Your task to perform on an android device: Go to location settings Image 0: 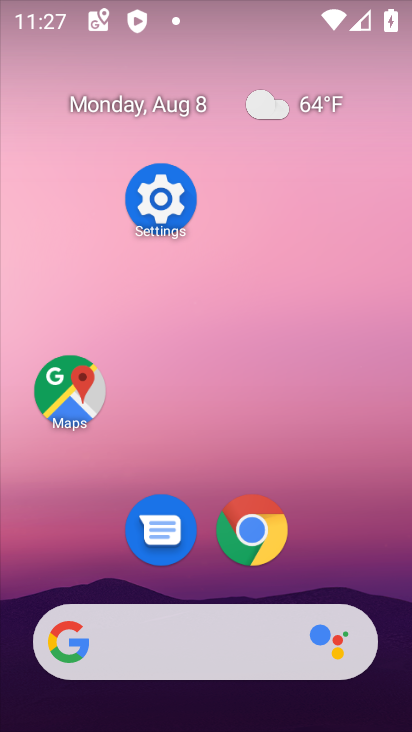
Step 0: drag from (233, 280) to (228, 221)
Your task to perform on an android device: Go to location settings Image 1: 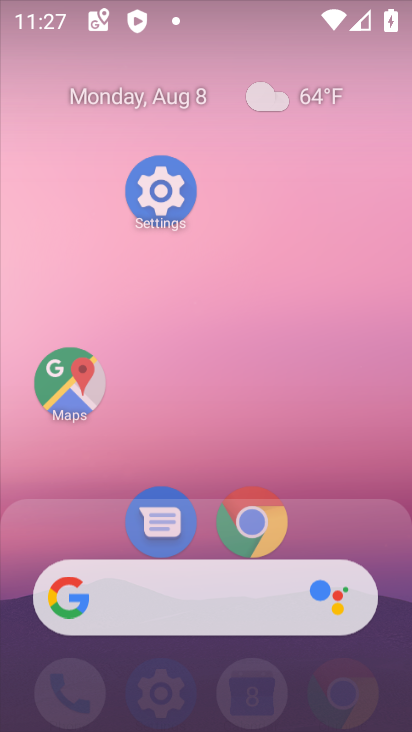
Step 1: drag from (267, 639) to (213, 236)
Your task to perform on an android device: Go to location settings Image 2: 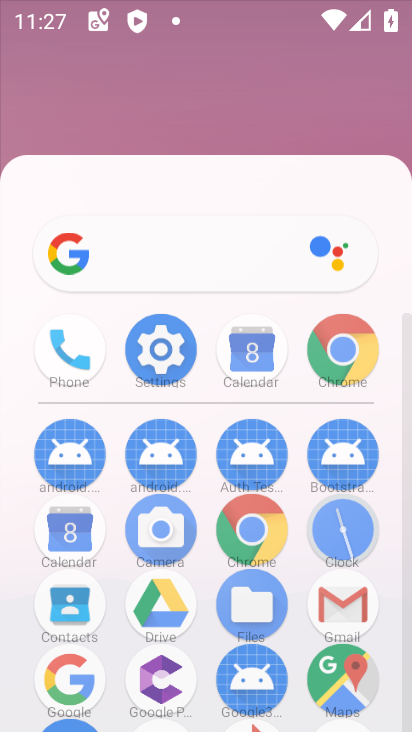
Step 2: drag from (261, 503) to (283, 199)
Your task to perform on an android device: Go to location settings Image 3: 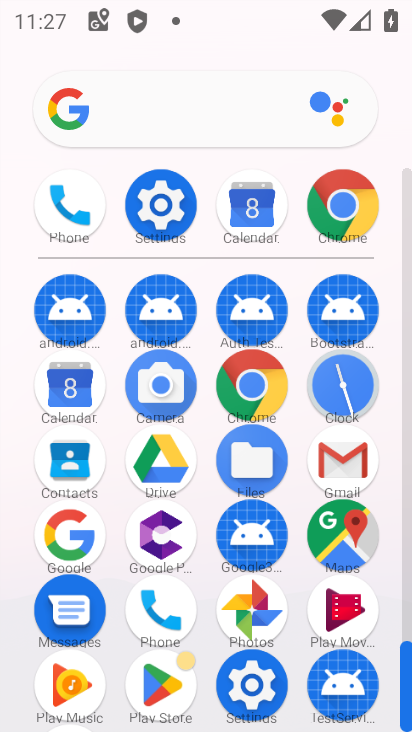
Step 3: click (165, 202)
Your task to perform on an android device: Go to location settings Image 4: 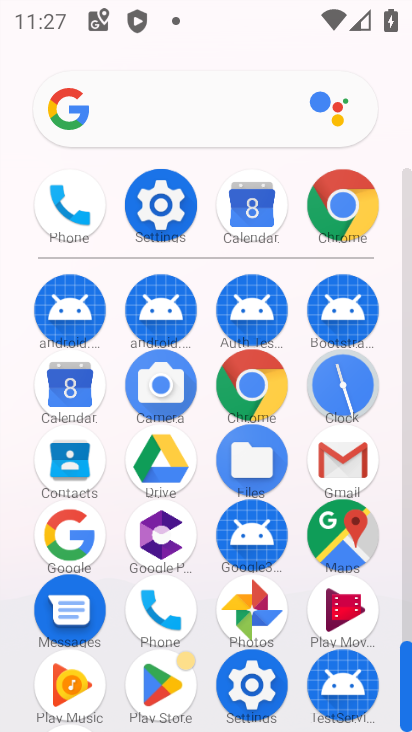
Step 4: click (165, 202)
Your task to perform on an android device: Go to location settings Image 5: 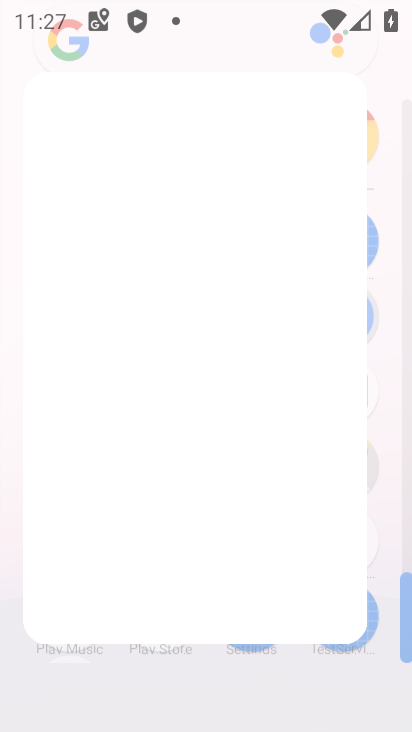
Step 5: click (166, 201)
Your task to perform on an android device: Go to location settings Image 6: 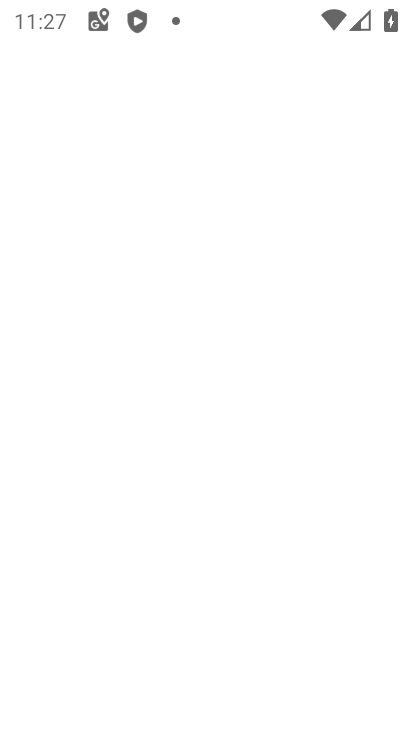
Step 6: click (166, 200)
Your task to perform on an android device: Go to location settings Image 7: 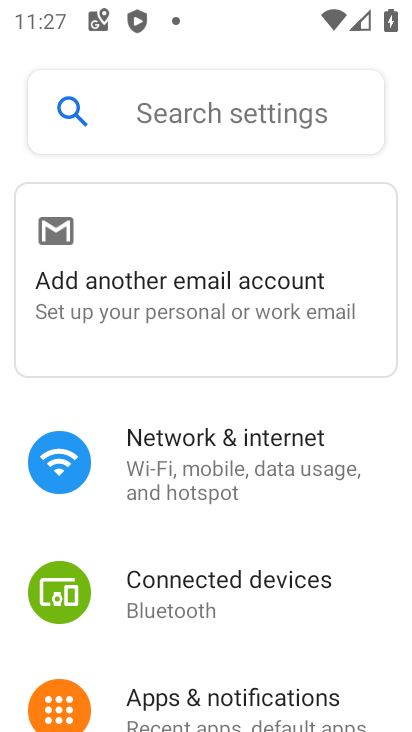
Step 7: drag from (272, 640) to (258, 299)
Your task to perform on an android device: Go to location settings Image 8: 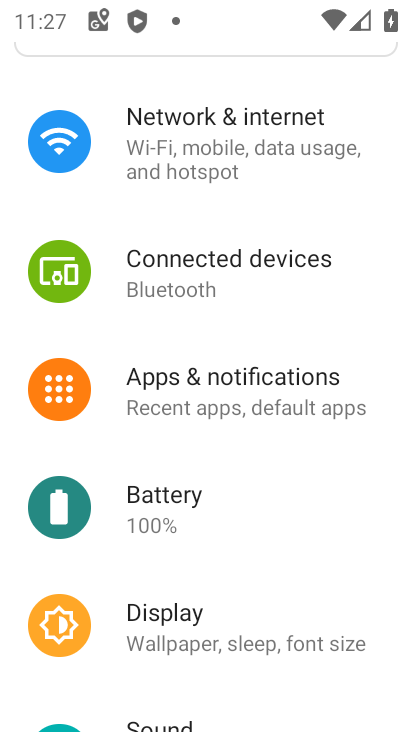
Step 8: drag from (261, 502) to (241, 279)
Your task to perform on an android device: Go to location settings Image 9: 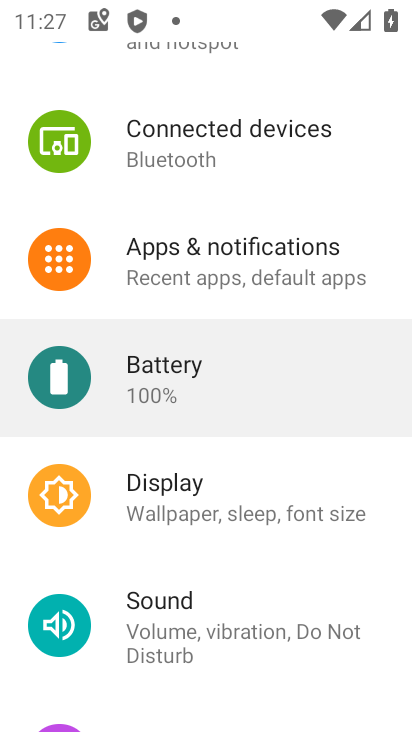
Step 9: drag from (265, 447) to (215, 171)
Your task to perform on an android device: Go to location settings Image 10: 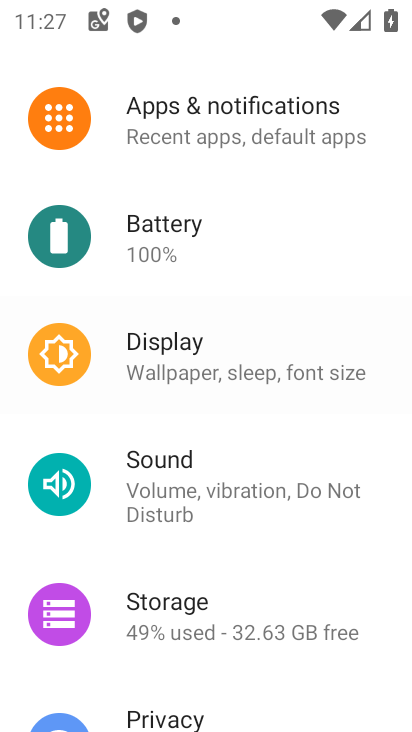
Step 10: drag from (236, 461) to (218, 218)
Your task to perform on an android device: Go to location settings Image 11: 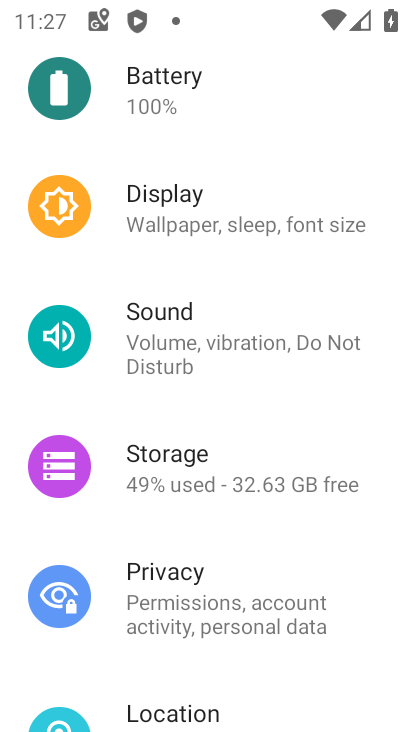
Step 11: drag from (167, 658) to (173, 241)
Your task to perform on an android device: Go to location settings Image 12: 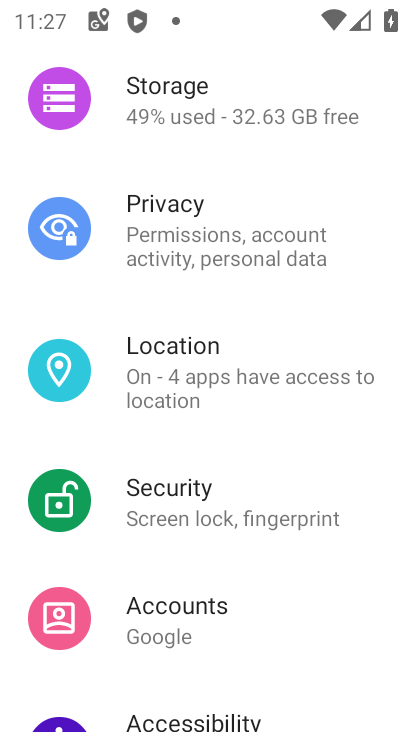
Step 12: drag from (232, 686) to (211, 318)
Your task to perform on an android device: Go to location settings Image 13: 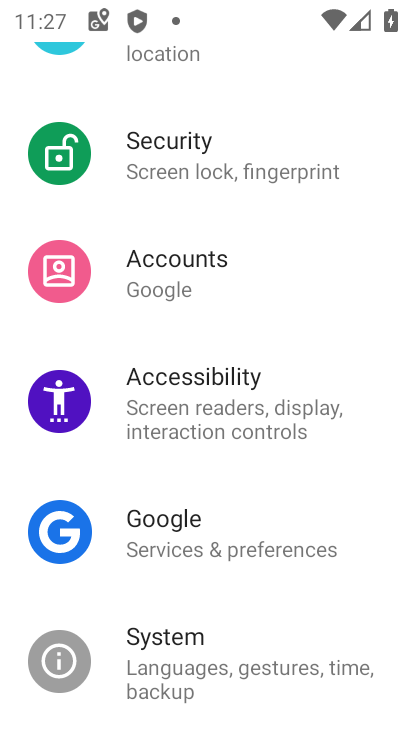
Step 13: click (172, 175)
Your task to perform on an android device: Go to location settings Image 14: 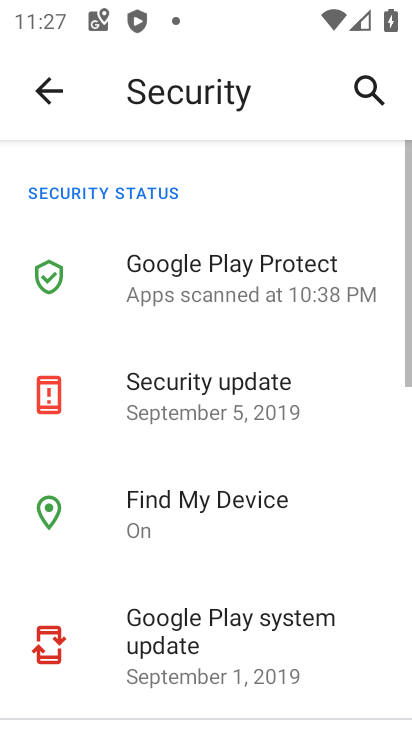
Step 14: click (45, 89)
Your task to perform on an android device: Go to location settings Image 15: 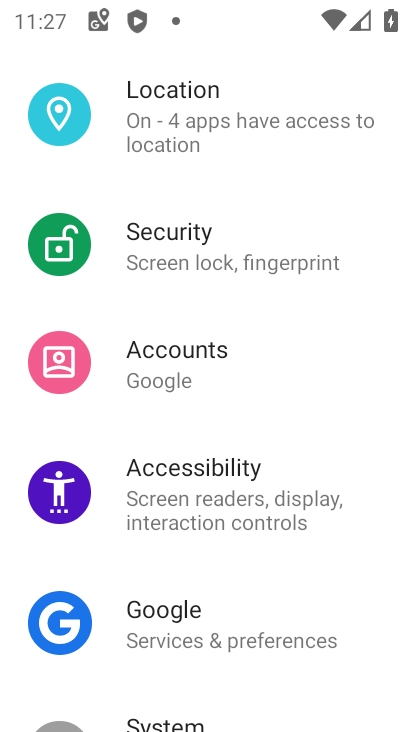
Step 15: click (175, 107)
Your task to perform on an android device: Go to location settings Image 16: 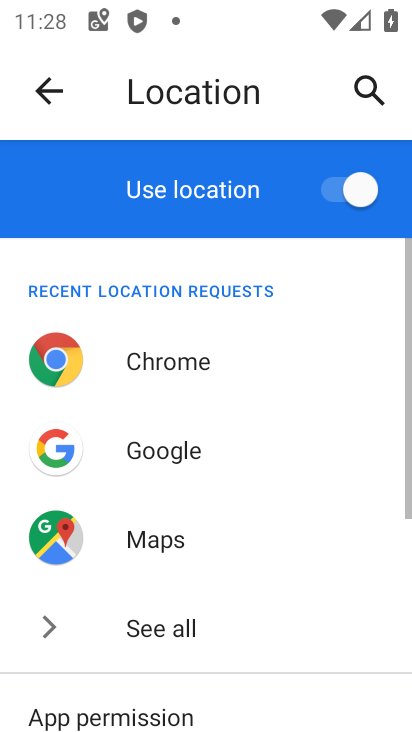
Step 16: task complete